Your task to perform on an android device: set the stopwatch Image 0: 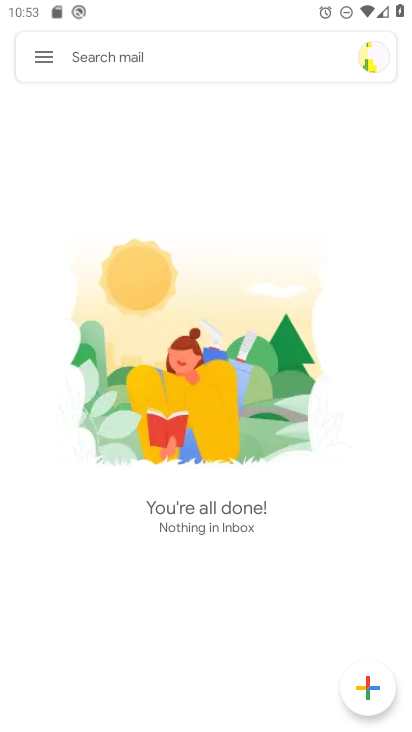
Step 0: press home button
Your task to perform on an android device: set the stopwatch Image 1: 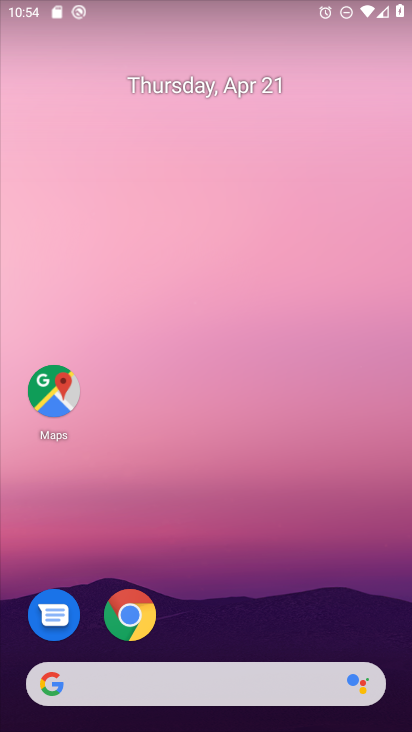
Step 1: drag from (199, 645) to (256, 109)
Your task to perform on an android device: set the stopwatch Image 2: 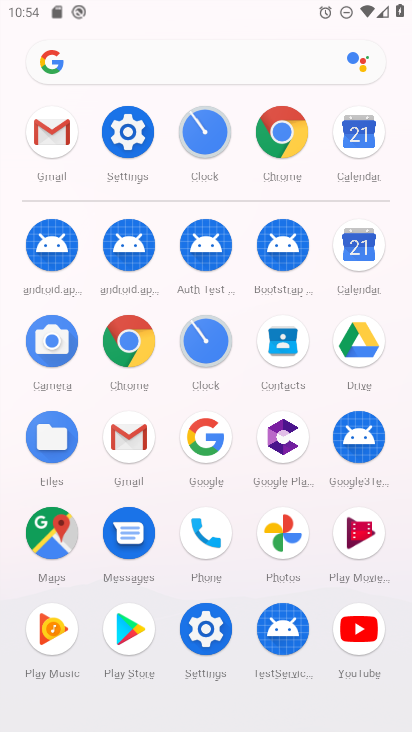
Step 2: click (204, 336)
Your task to perform on an android device: set the stopwatch Image 3: 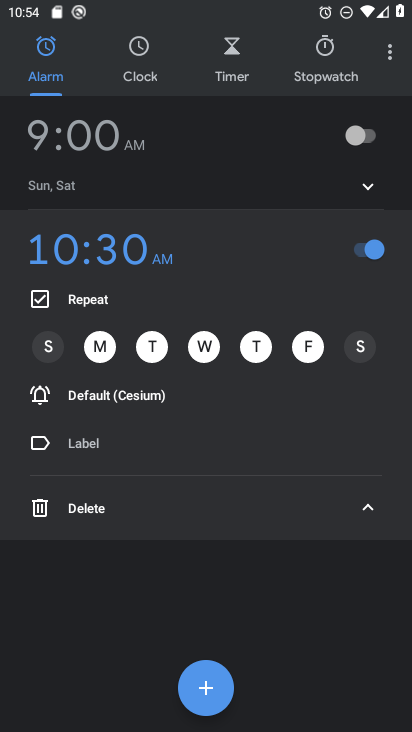
Step 3: click (321, 47)
Your task to perform on an android device: set the stopwatch Image 4: 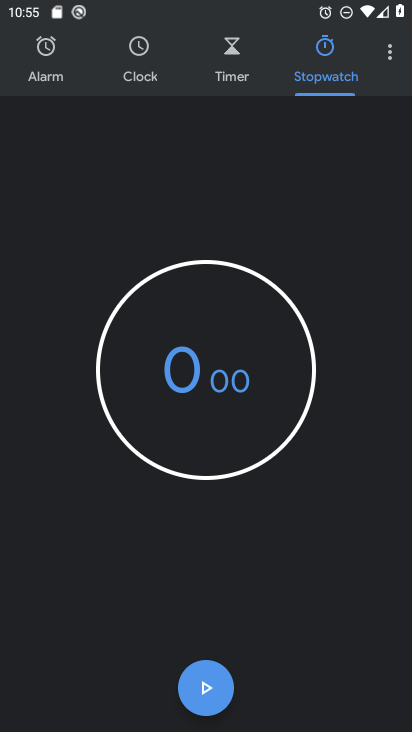
Step 4: click (209, 693)
Your task to perform on an android device: set the stopwatch Image 5: 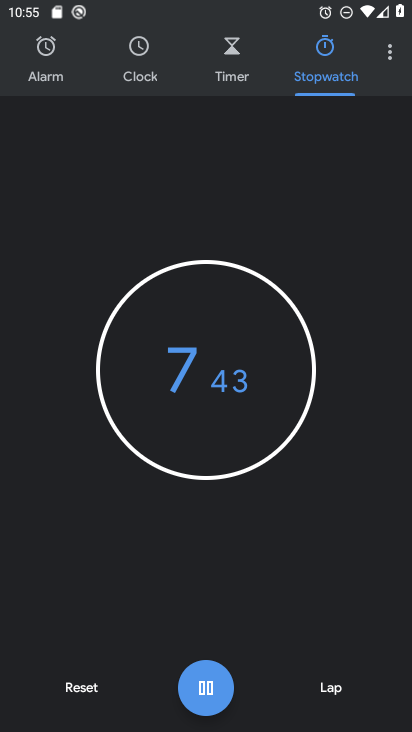
Step 5: task complete